Your task to perform on an android device: change your default location settings in chrome Image 0: 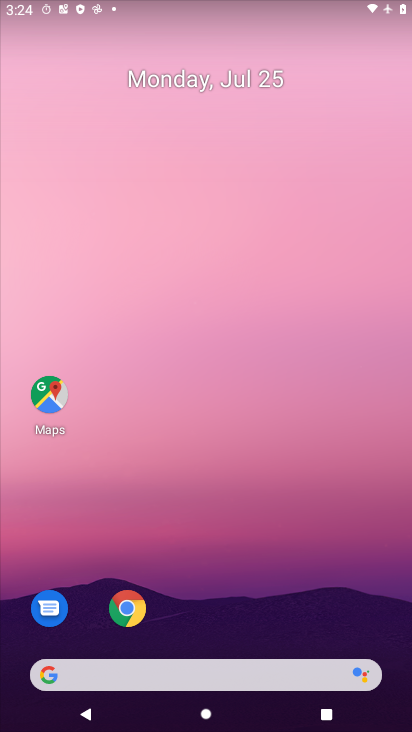
Step 0: drag from (210, 665) to (302, 196)
Your task to perform on an android device: change your default location settings in chrome Image 1: 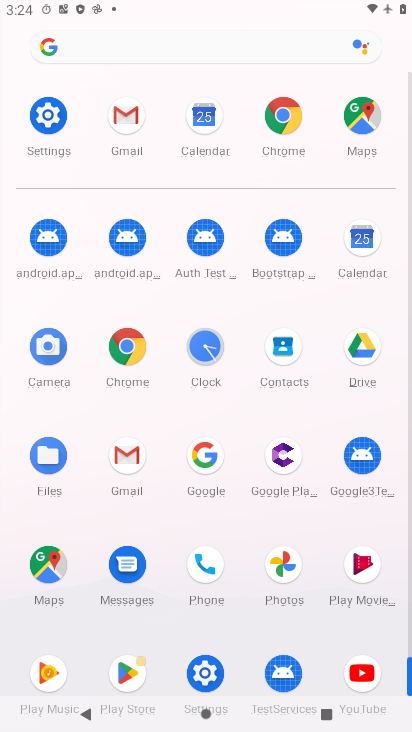
Step 1: click (143, 370)
Your task to perform on an android device: change your default location settings in chrome Image 2: 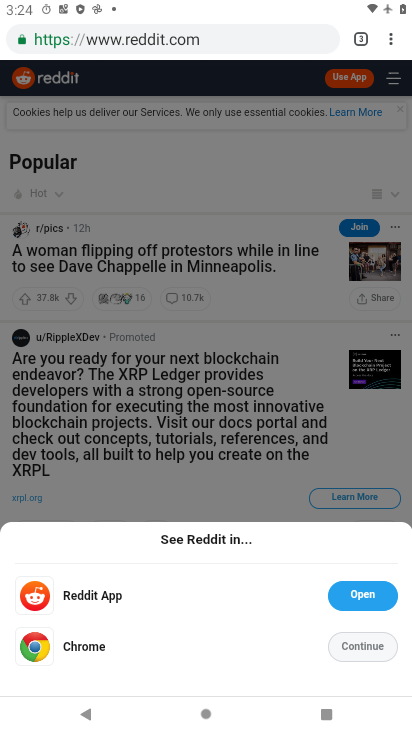
Step 2: click (397, 42)
Your task to perform on an android device: change your default location settings in chrome Image 3: 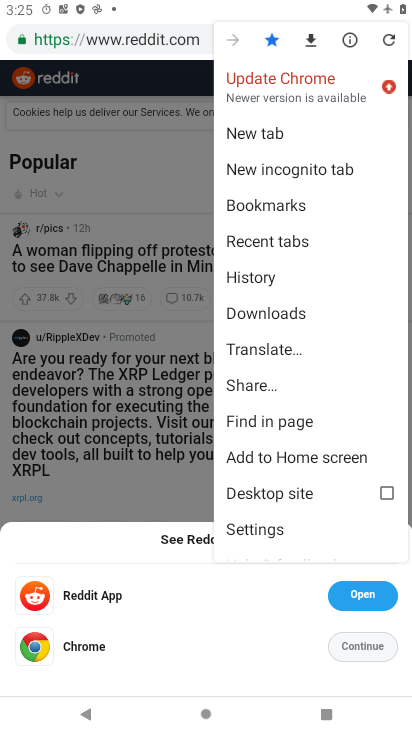
Step 3: click (276, 536)
Your task to perform on an android device: change your default location settings in chrome Image 4: 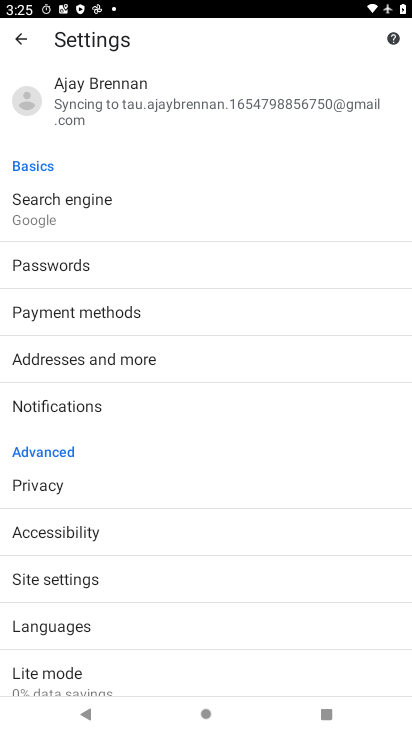
Step 4: click (86, 577)
Your task to perform on an android device: change your default location settings in chrome Image 5: 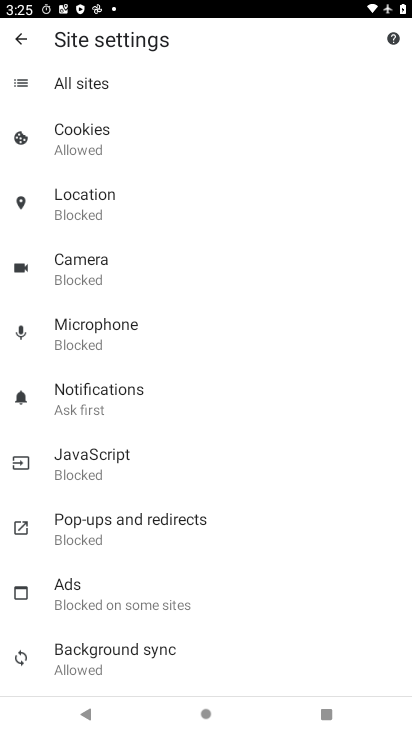
Step 5: click (86, 202)
Your task to perform on an android device: change your default location settings in chrome Image 6: 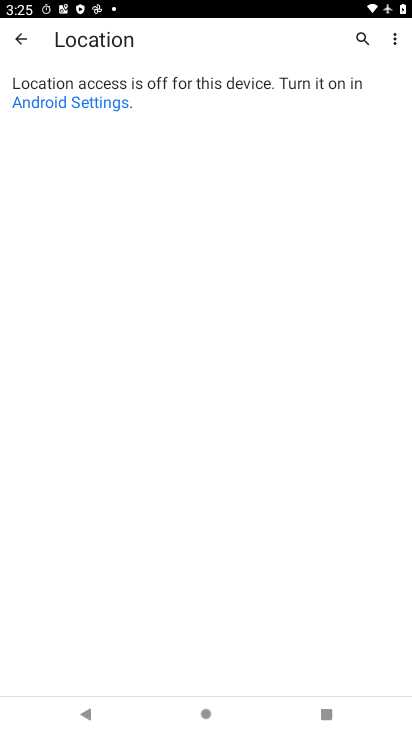
Step 6: task complete